Your task to perform on an android device: change the clock display to show seconds Image 0: 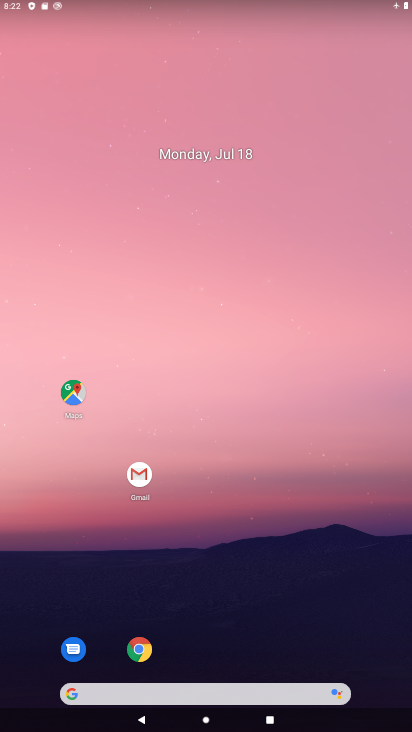
Step 0: drag from (287, 583) to (299, 165)
Your task to perform on an android device: change the clock display to show seconds Image 1: 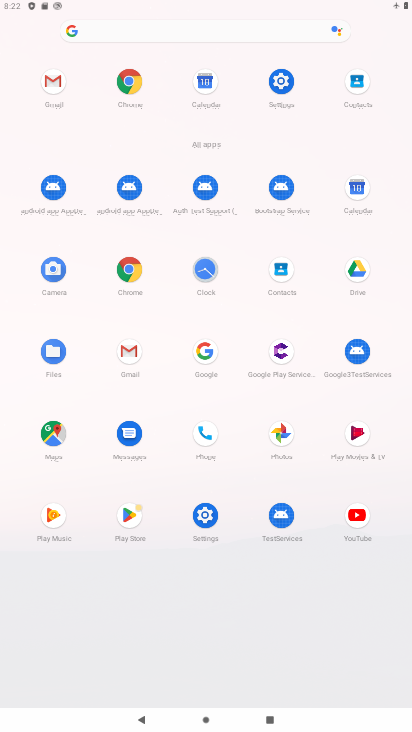
Step 1: click (202, 269)
Your task to perform on an android device: change the clock display to show seconds Image 2: 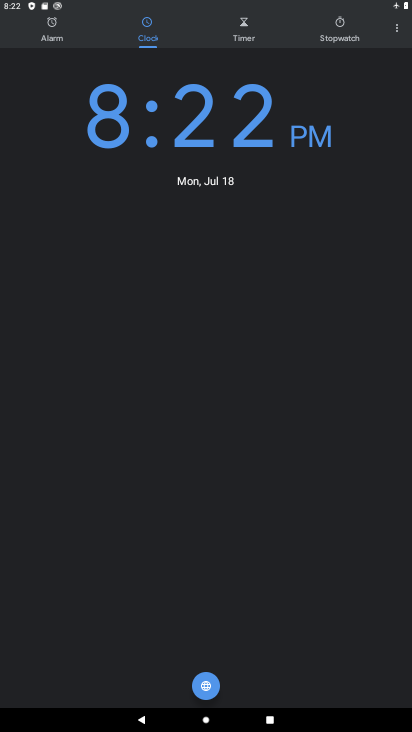
Step 2: click (396, 29)
Your task to perform on an android device: change the clock display to show seconds Image 3: 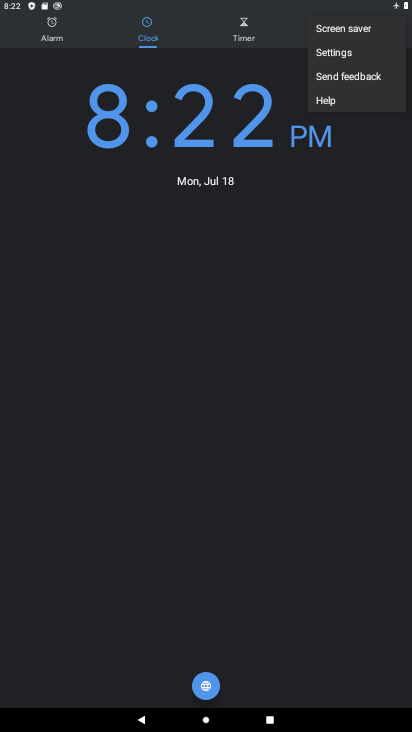
Step 3: click (347, 61)
Your task to perform on an android device: change the clock display to show seconds Image 4: 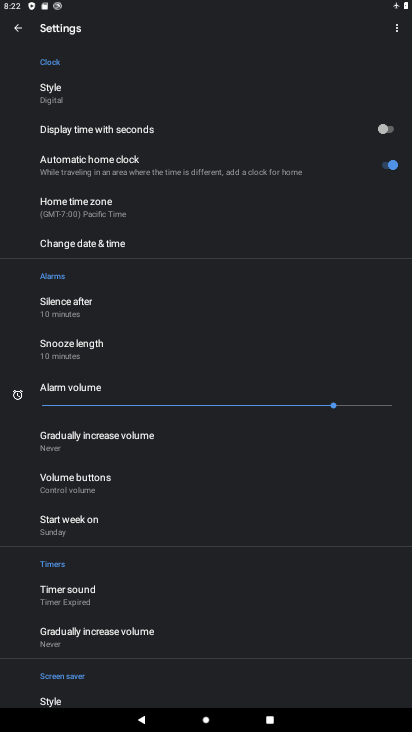
Step 4: click (387, 133)
Your task to perform on an android device: change the clock display to show seconds Image 5: 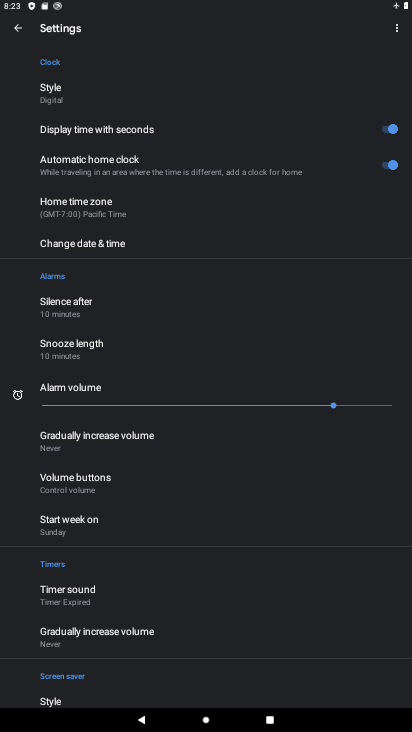
Step 5: task complete